Your task to perform on an android device: When is my next meeting? Image 0: 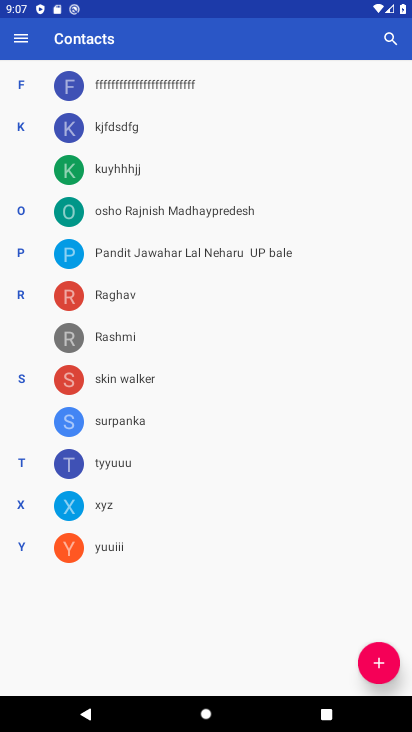
Step 0: press home button
Your task to perform on an android device: When is my next meeting? Image 1: 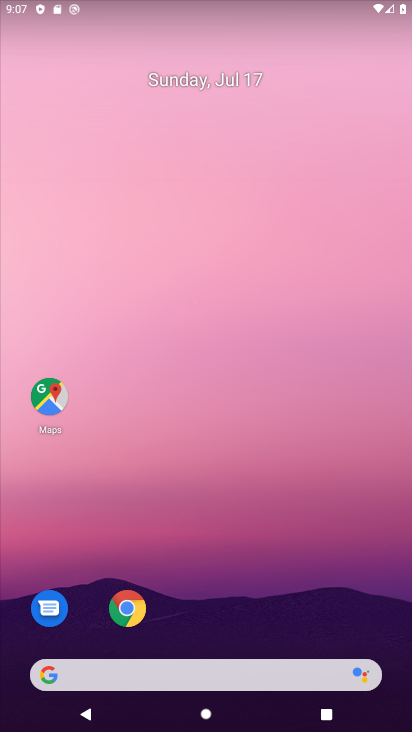
Step 1: drag from (292, 620) to (169, 0)
Your task to perform on an android device: When is my next meeting? Image 2: 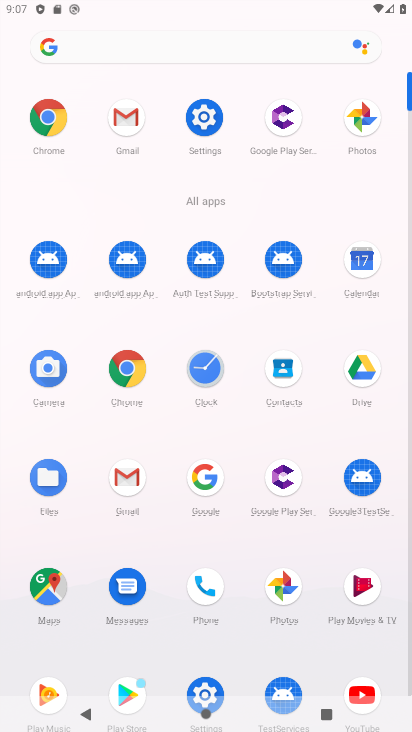
Step 2: click (372, 268)
Your task to perform on an android device: When is my next meeting? Image 3: 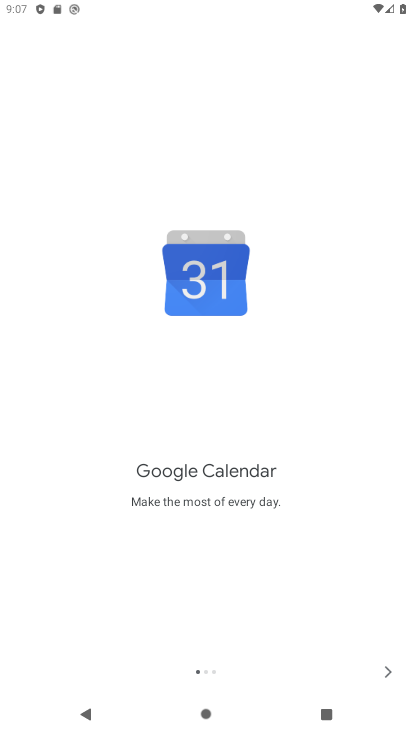
Step 3: click (385, 676)
Your task to perform on an android device: When is my next meeting? Image 4: 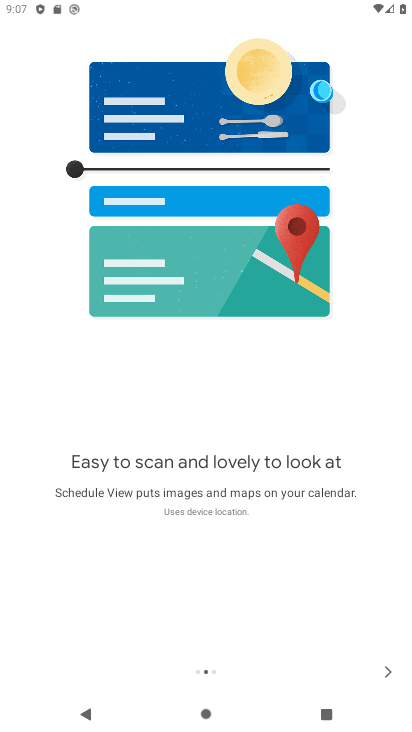
Step 4: click (385, 664)
Your task to perform on an android device: When is my next meeting? Image 5: 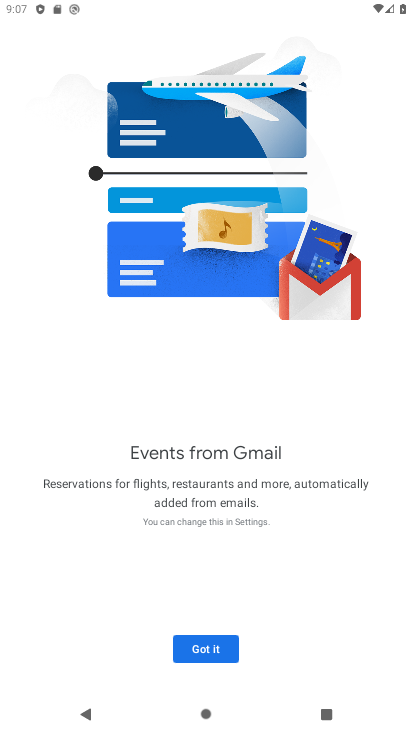
Step 5: click (197, 654)
Your task to perform on an android device: When is my next meeting? Image 6: 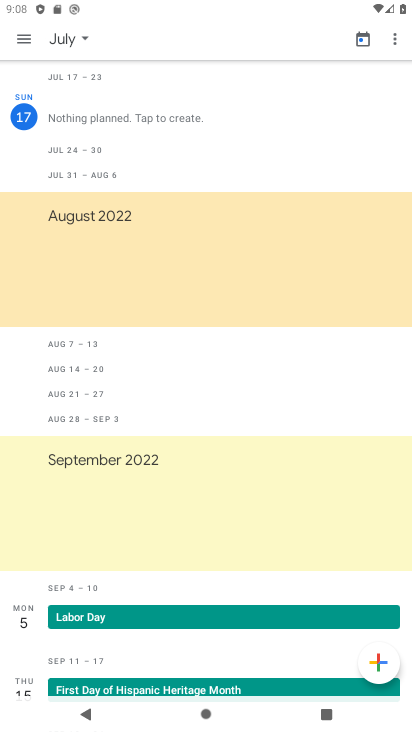
Step 6: click (66, 29)
Your task to perform on an android device: When is my next meeting? Image 7: 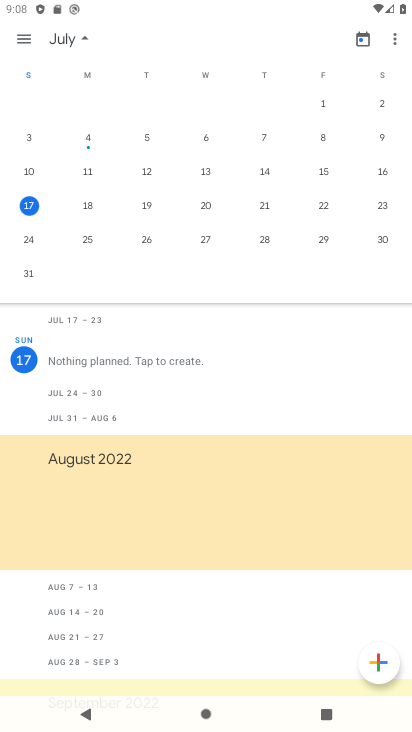
Step 7: task complete